Your task to perform on an android device: toggle airplane mode Image 0: 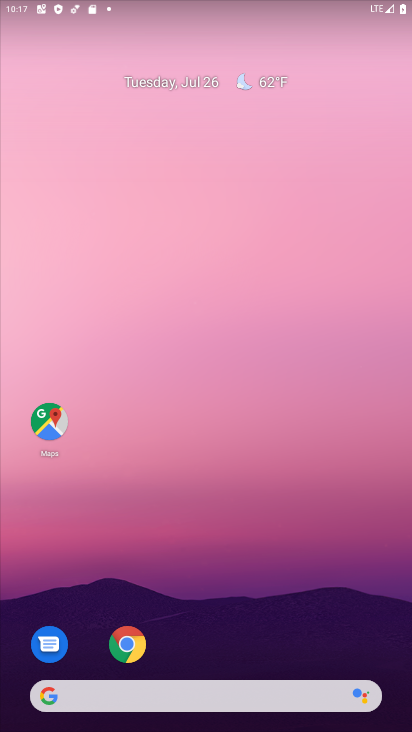
Step 0: drag from (270, 645) to (240, 6)
Your task to perform on an android device: toggle airplane mode Image 1: 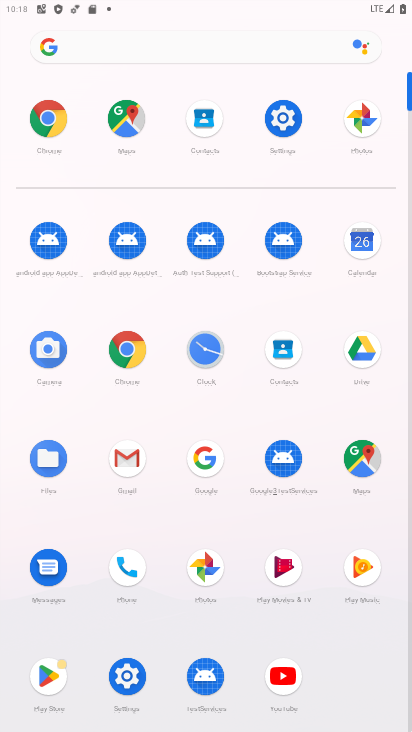
Step 1: click (283, 135)
Your task to perform on an android device: toggle airplane mode Image 2: 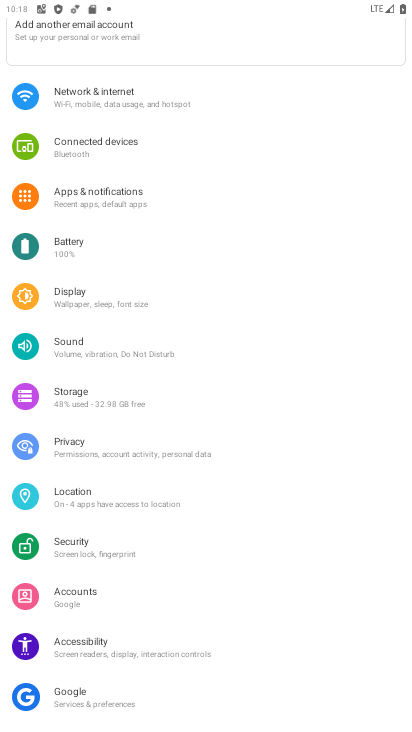
Step 2: click (66, 102)
Your task to perform on an android device: toggle airplane mode Image 3: 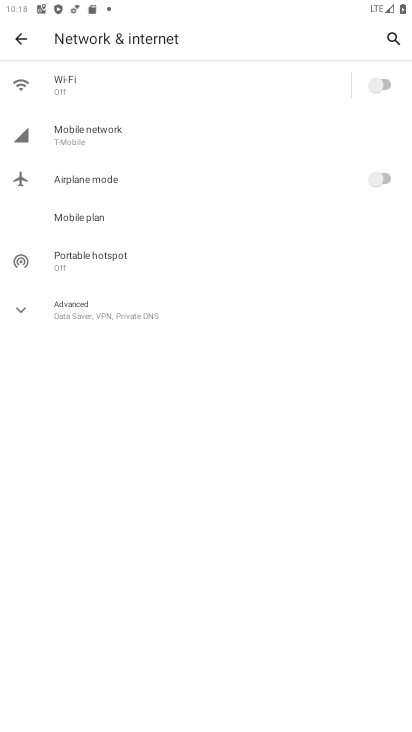
Step 3: click (375, 172)
Your task to perform on an android device: toggle airplane mode Image 4: 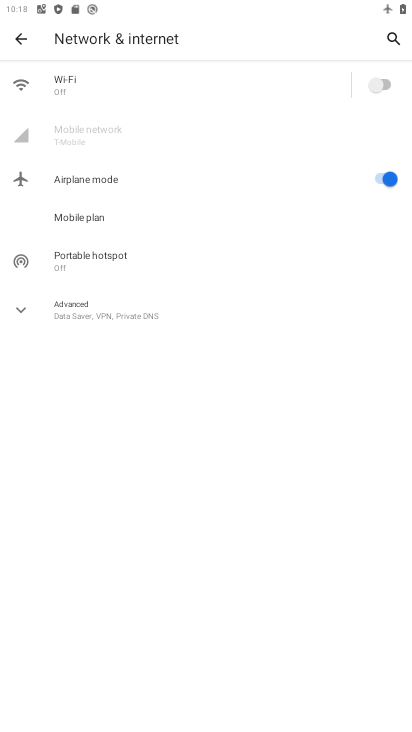
Step 4: task complete